Your task to perform on an android device: turn off improve location accuracy Image 0: 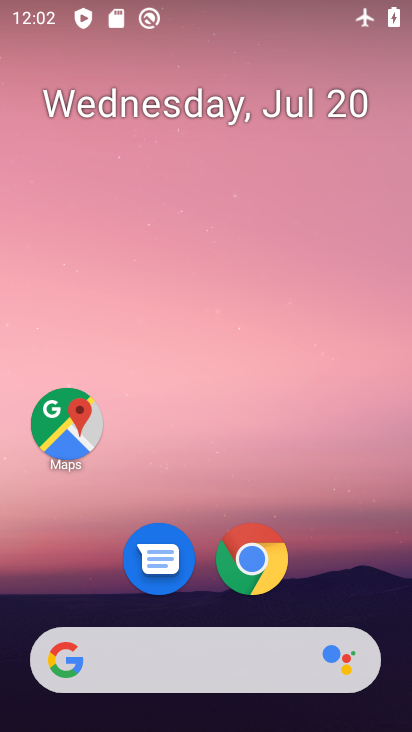
Step 0: drag from (379, 584) to (384, 130)
Your task to perform on an android device: turn off improve location accuracy Image 1: 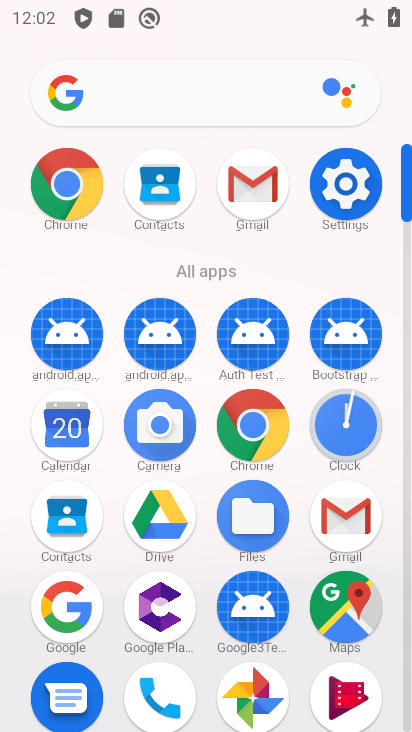
Step 1: click (341, 203)
Your task to perform on an android device: turn off improve location accuracy Image 2: 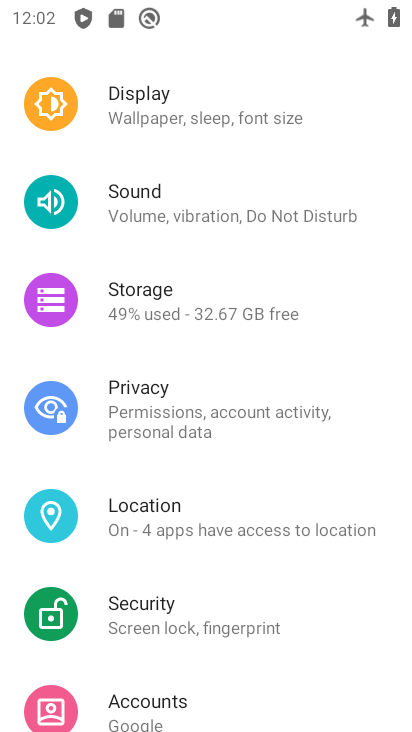
Step 2: drag from (354, 250) to (355, 329)
Your task to perform on an android device: turn off improve location accuracy Image 3: 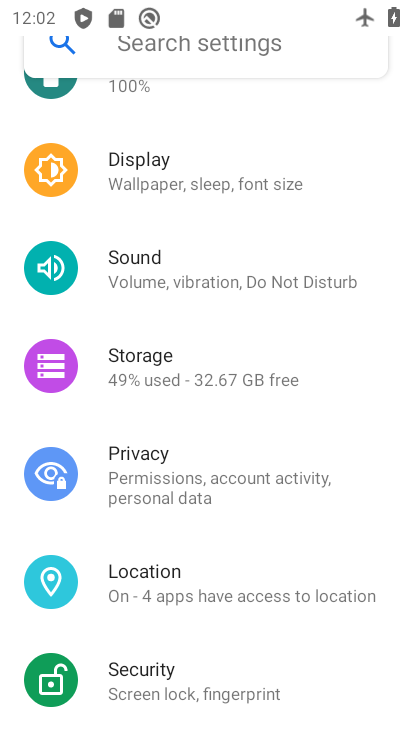
Step 3: drag from (362, 229) to (371, 330)
Your task to perform on an android device: turn off improve location accuracy Image 4: 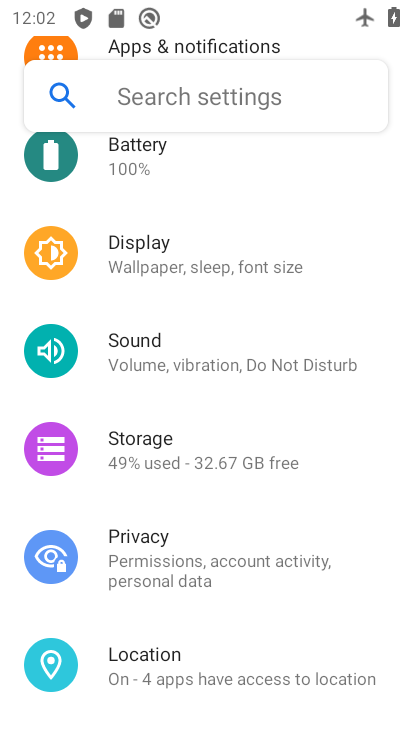
Step 4: drag from (367, 207) to (374, 309)
Your task to perform on an android device: turn off improve location accuracy Image 5: 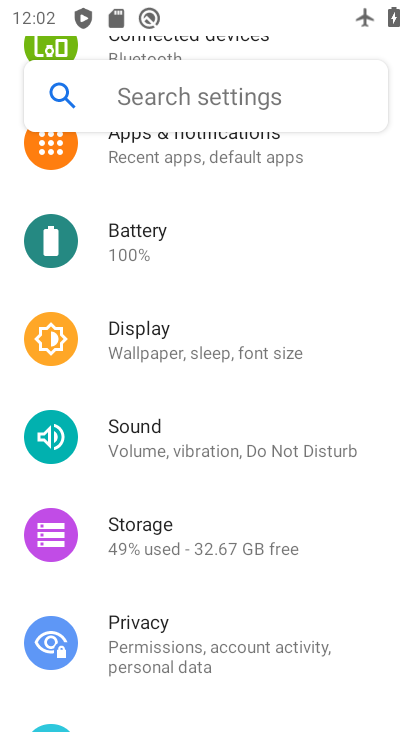
Step 5: drag from (361, 249) to (367, 360)
Your task to perform on an android device: turn off improve location accuracy Image 6: 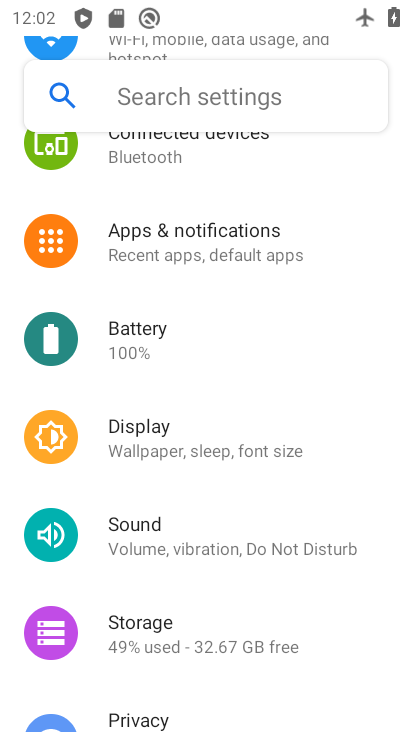
Step 6: drag from (365, 242) to (371, 353)
Your task to perform on an android device: turn off improve location accuracy Image 7: 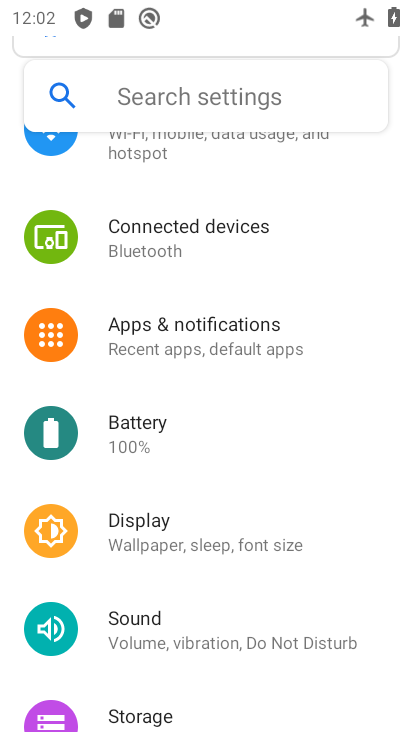
Step 7: drag from (352, 210) to (352, 359)
Your task to perform on an android device: turn off improve location accuracy Image 8: 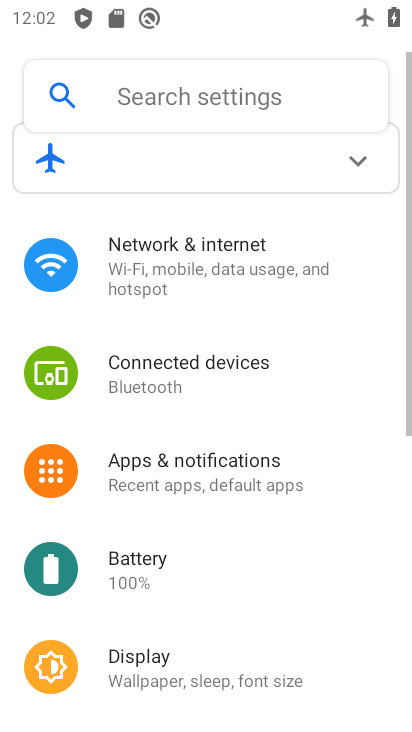
Step 8: drag from (336, 447) to (329, 341)
Your task to perform on an android device: turn off improve location accuracy Image 9: 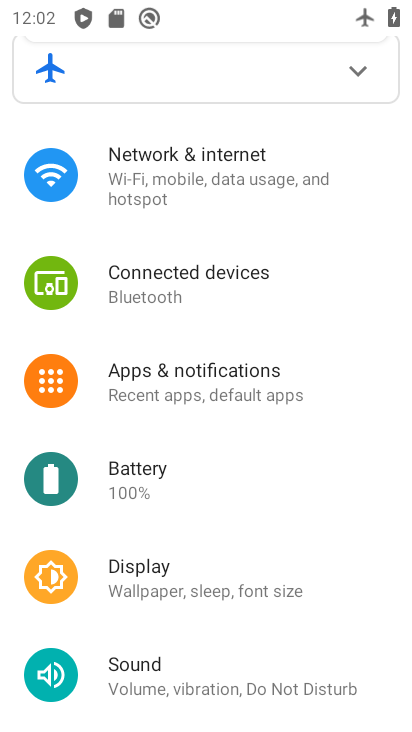
Step 9: drag from (327, 456) to (326, 369)
Your task to perform on an android device: turn off improve location accuracy Image 10: 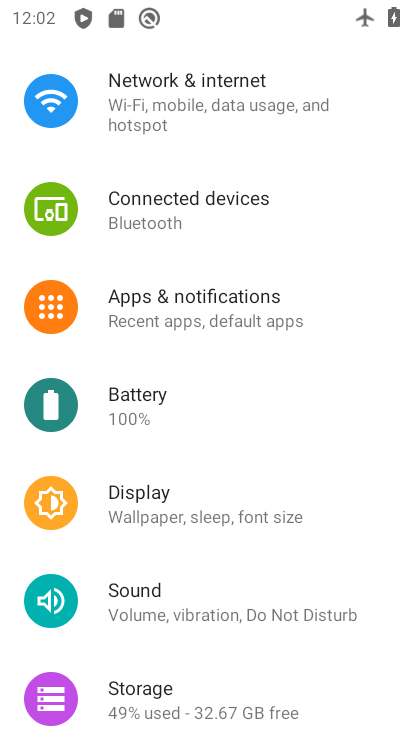
Step 10: drag from (333, 463) to (340, 358)
Your task to perform on an android device: turn off improve location accuracy Image 11: 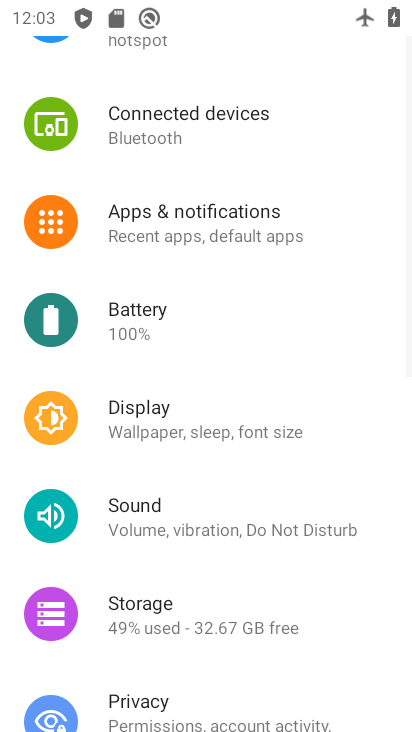
Step 11: drag from (362, 563) to (368, 332)
Your task to perform on an android device: turn off improve location accuracy Image 12: 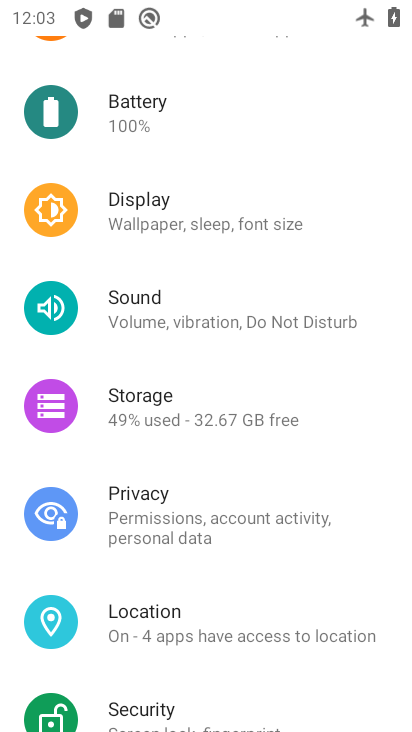
Step 12: click (322, 626)
Your task to perform on an android device: turn off improve location accuracy Image 13: 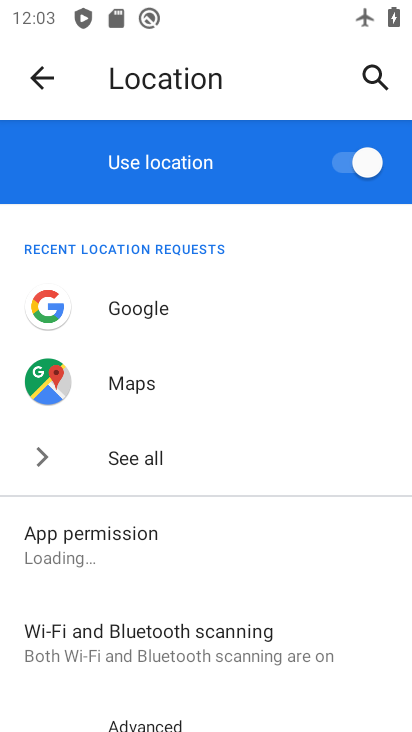
Step 13: drag from (336, 561) to (334, 387)
Your task to perform on an android device: turn off improve location accuracy Image 14: 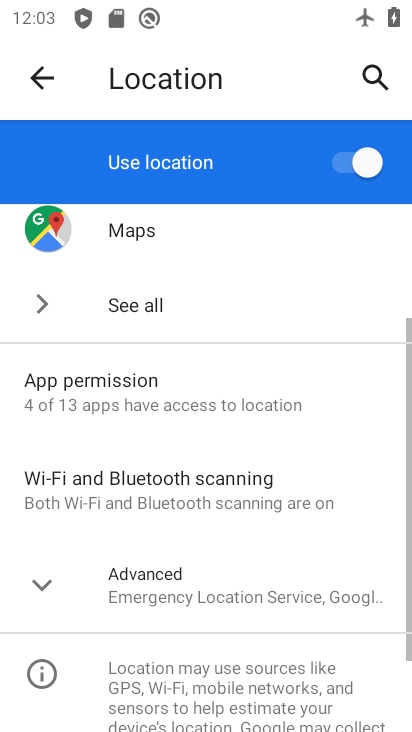
Step 14: click (338, 576)
Your task to perform on an android device: turn off improve location accuracy Image 15: 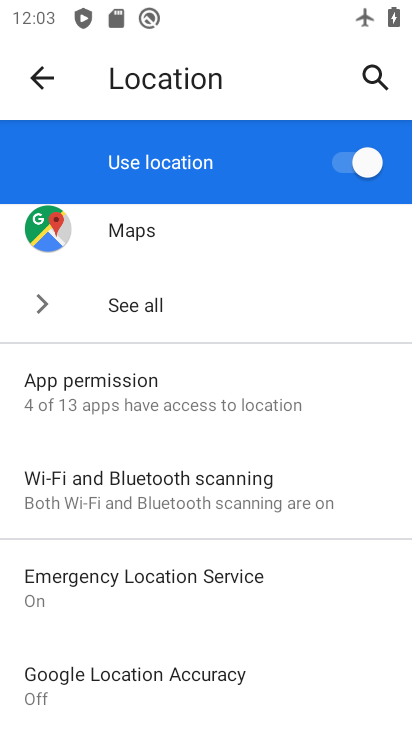
Step 15: drag from (330, 599) to (331, 460)
Your task to perform on an android device: turn off improve location accuracy Image 16: 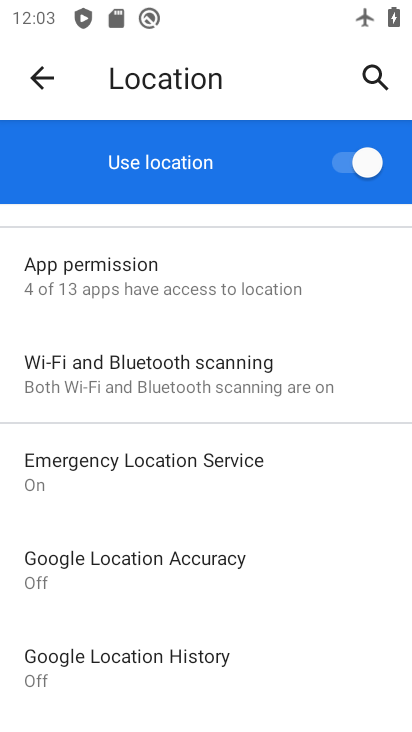
Step 16: click (262, 556)
Your task to perform on an android device: turn off improve location accuracy Image 17: 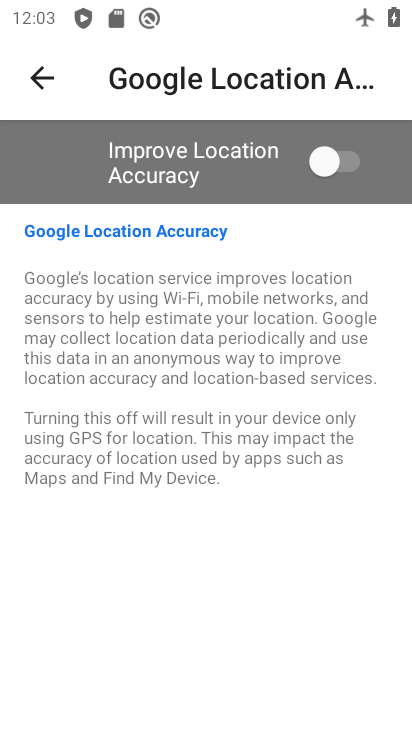
Step 17: task complete